Your task to perform on an android device: set default search engine in the chrome app Image 0: 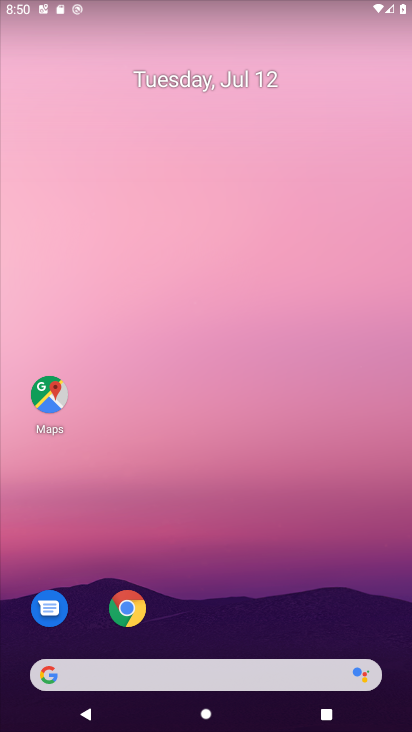
Step 0: press home button
Your task to perform on an android device: set default search engine in the chrome app Image 1: 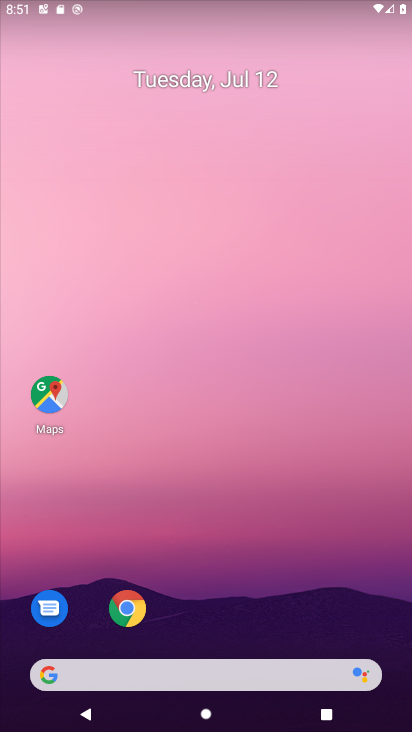
Step 1: click (123, 611)
Your task to perform on an android device: set default search engine in the chrome app Image 2: 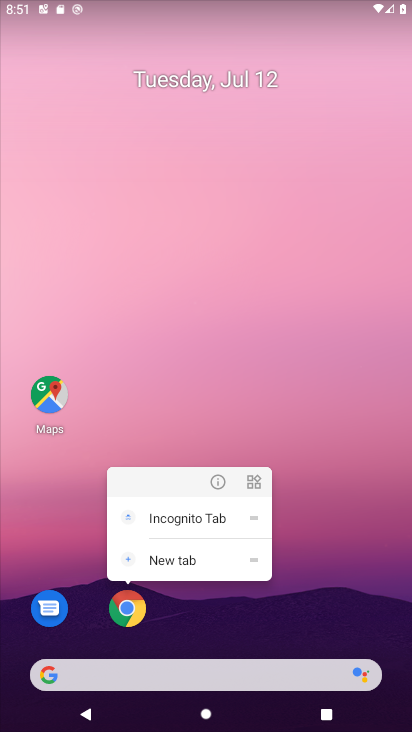
Step 2: click (132, 608)
Your task to perform on an android device: set default search engine in the chrome app Image 3: 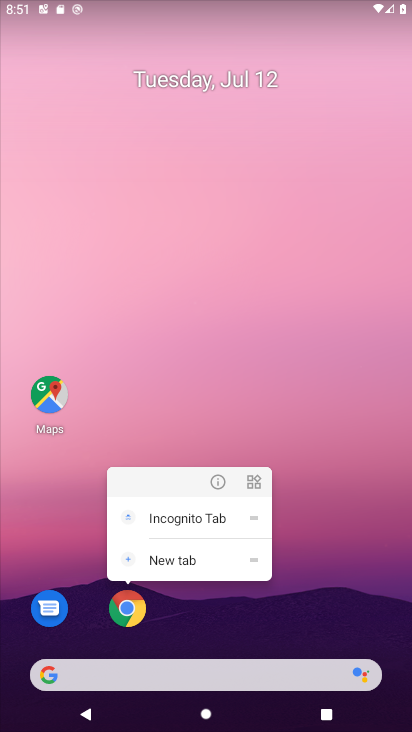
Step 3: click (125, 613)
Your task to perform on an android device: set default search engine in the chrome app Image 4: 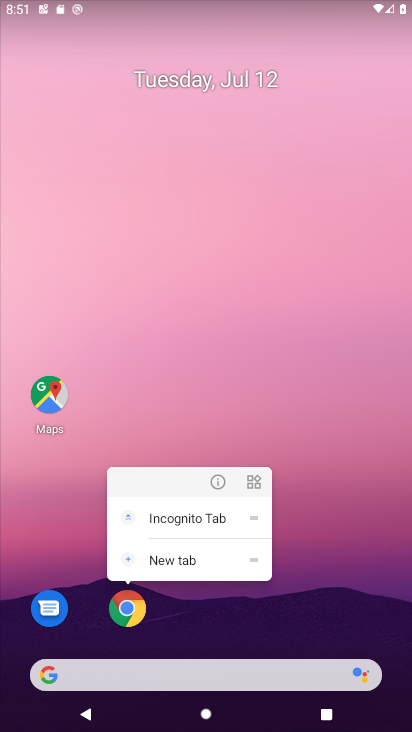
Step 4: click (136, 613)
Your task to perform on an android device: set default search engine in the chrome app Image 5: 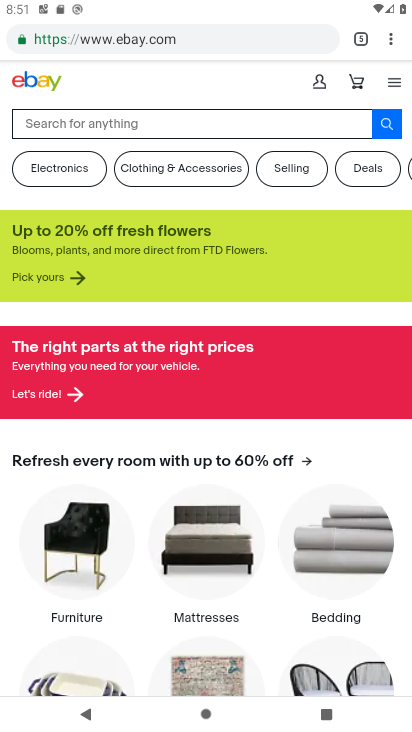
Step 5: drag from (387, 43) to (276, 467)
Your task to perform on an android device: set default search engine in the chrome app Image 6: 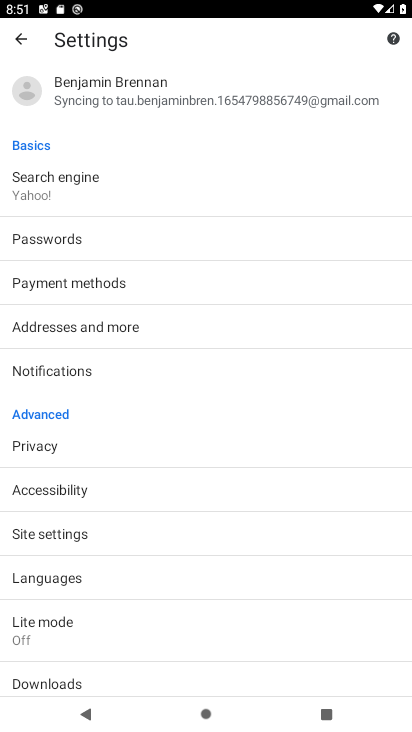
Step 6: click (54, 190)
Your task to perform on an android device: set default search engine in the chrome app Image 7: 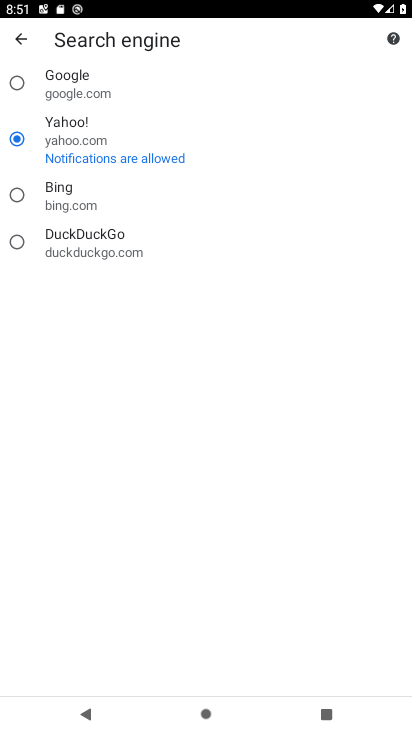
Step 7: click (13, 81)
Your task to perform on an android device: set default search engine in the chrome app Image 8: 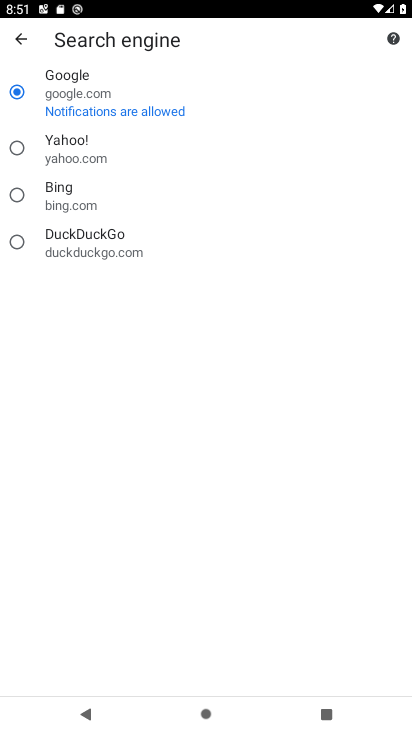
Step 8: task complete